Your task to perform on an android device: turn on airplane mode Image 0: 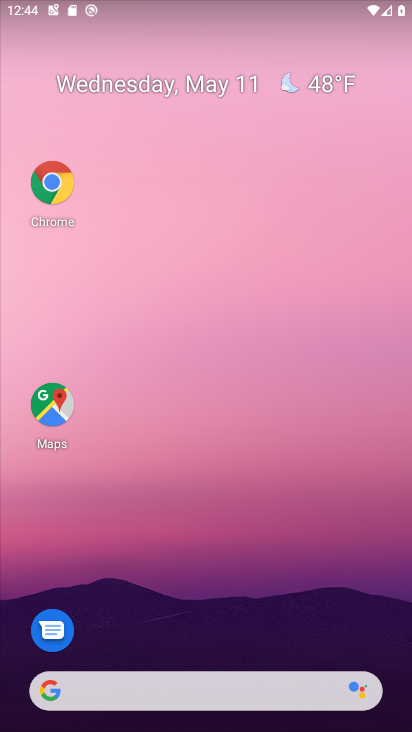
Step 0: drag from (198, 660) to (119, 10)
Your task to perform on an android device: turn on airplane mode Image 1: 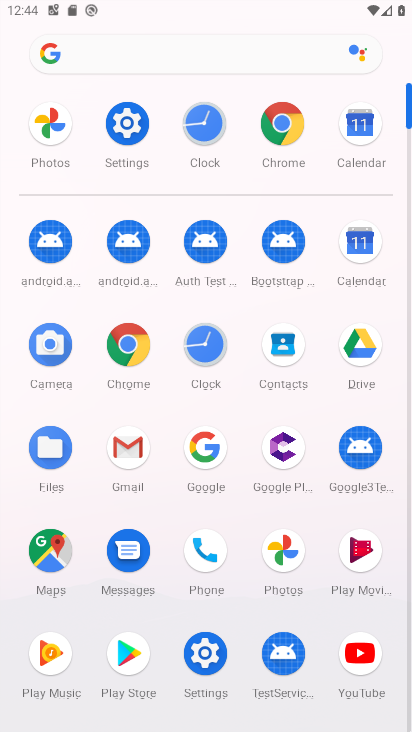
Step 1: click (113, 136)
Your task to perform on an android device: turn on airplane mode Image 2: 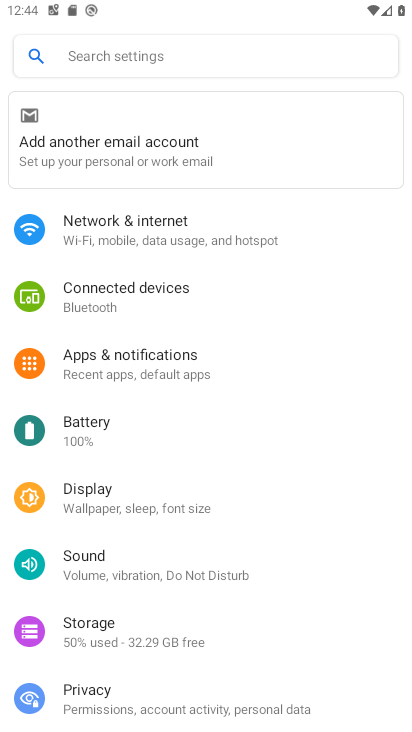
Step 2: click (88, 229)
Your task to perform on an android device: turn on airplane mode Image 3: 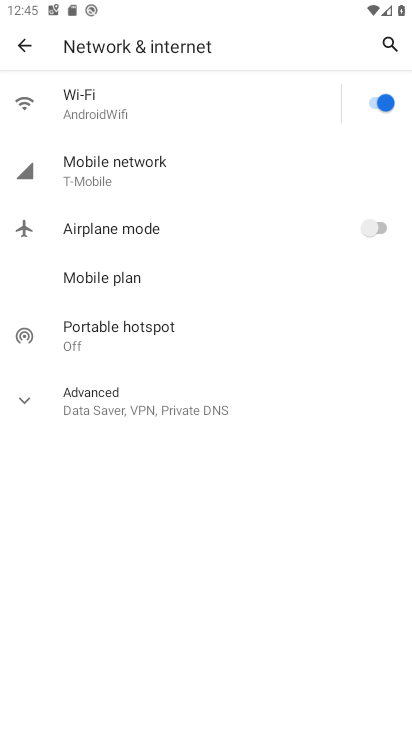
Step 3: click (373, 233)
Your task to perform on an android device: turn on airplane mode Image 4: 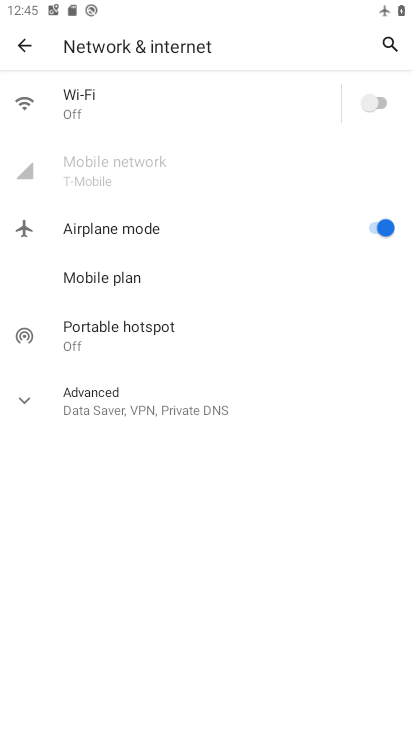
Step 4: task complete